Your task to perform on an android device: change your default location settings in chrome Image 0: 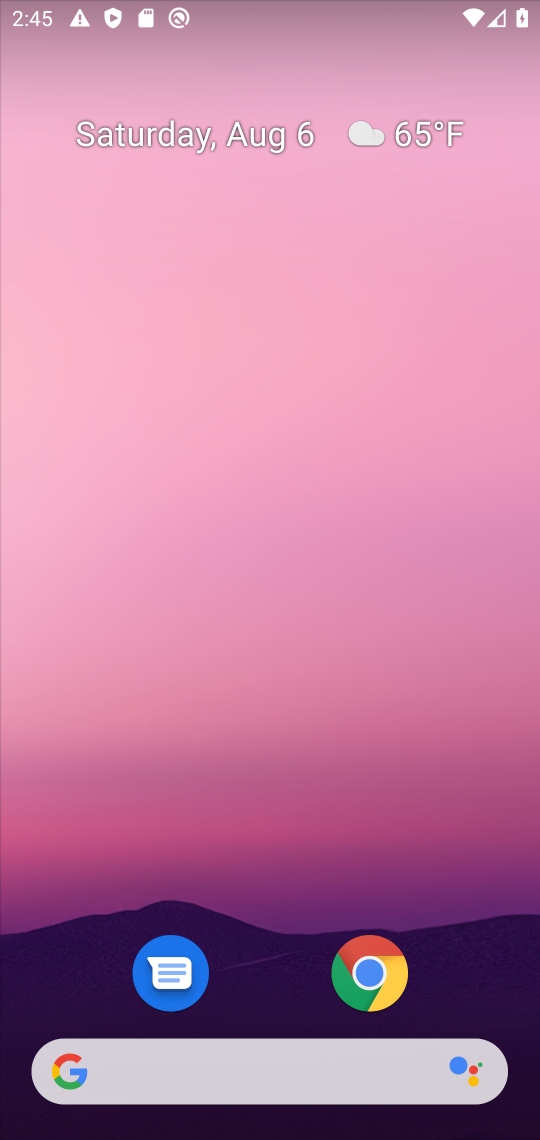
Step 0: click (364, 969)
Your task to perform on an android device: change your default location settings in chrome Image 1: 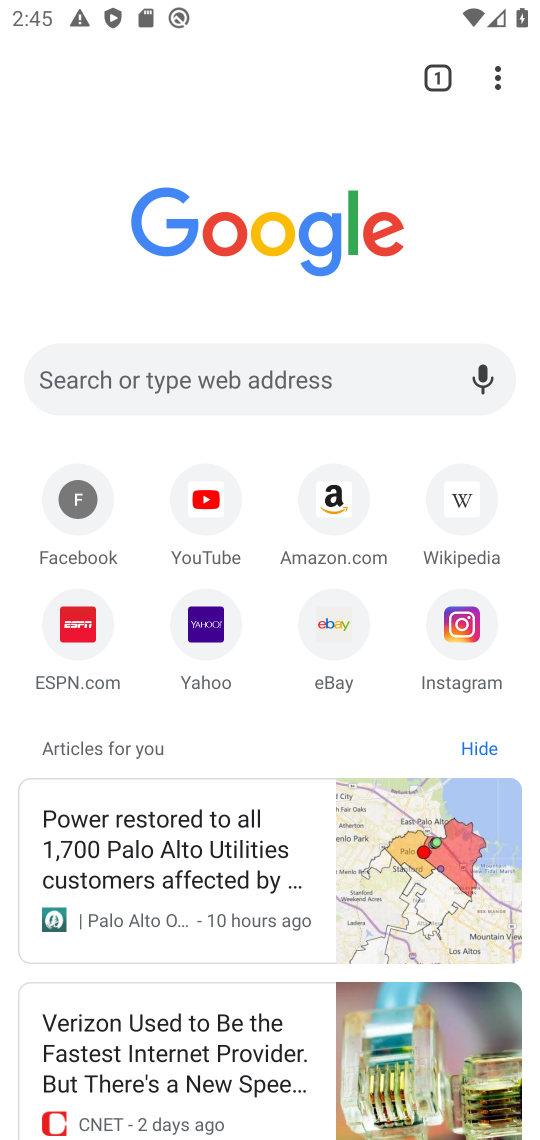
Step 1: click (498, 95)
Your task to perform on an android device: change your default location settings in chrome Image 2: 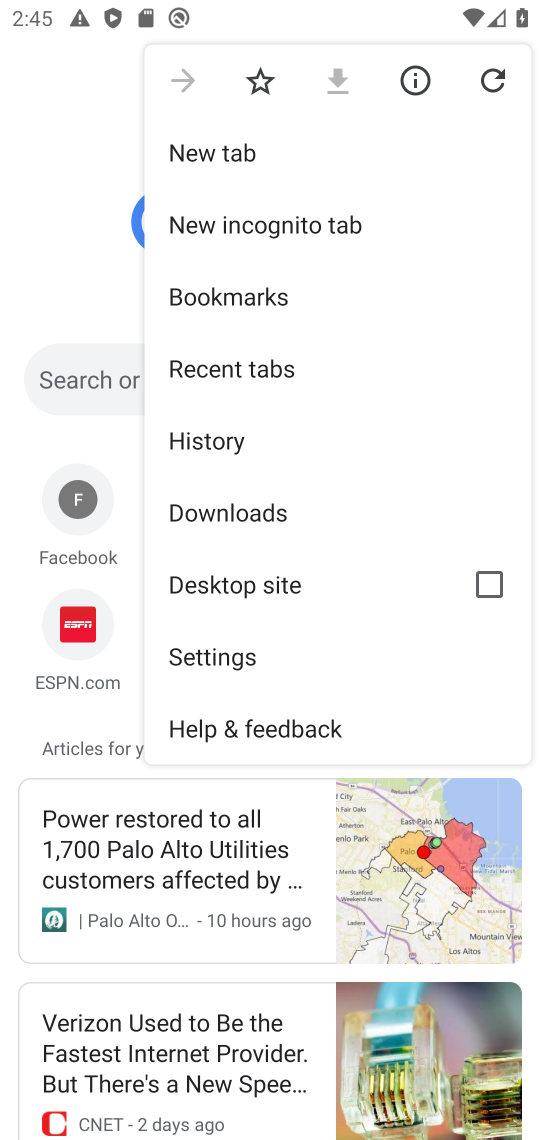
Step 2: click (269, 648)
Your task to perform on an android device: change your default location settings in chrome Image 3: 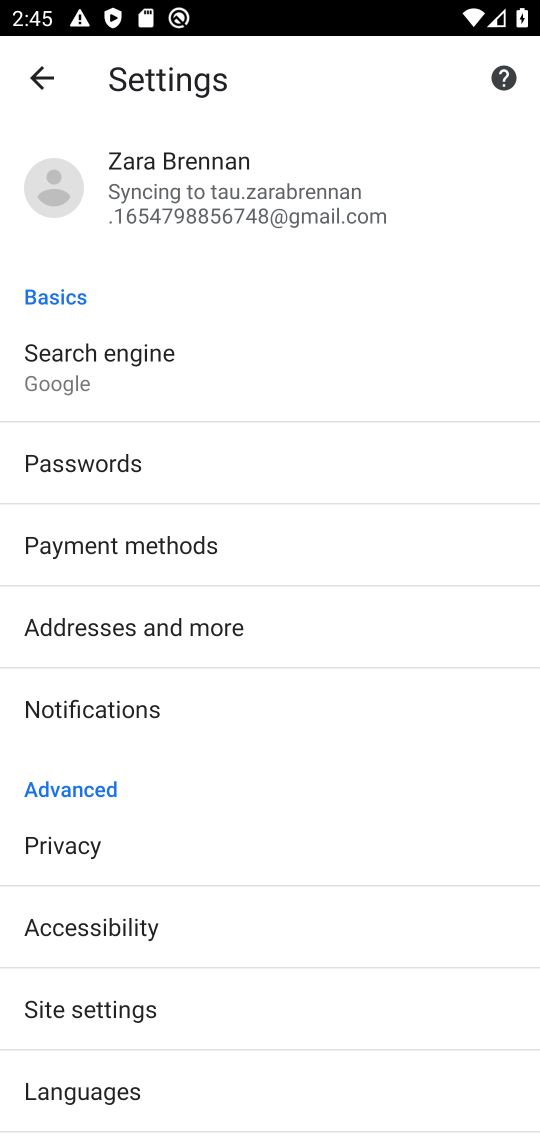
Step 3: click (116, 1023)
Your task to perform on an android device: change your default location settings in chrome Image 4: 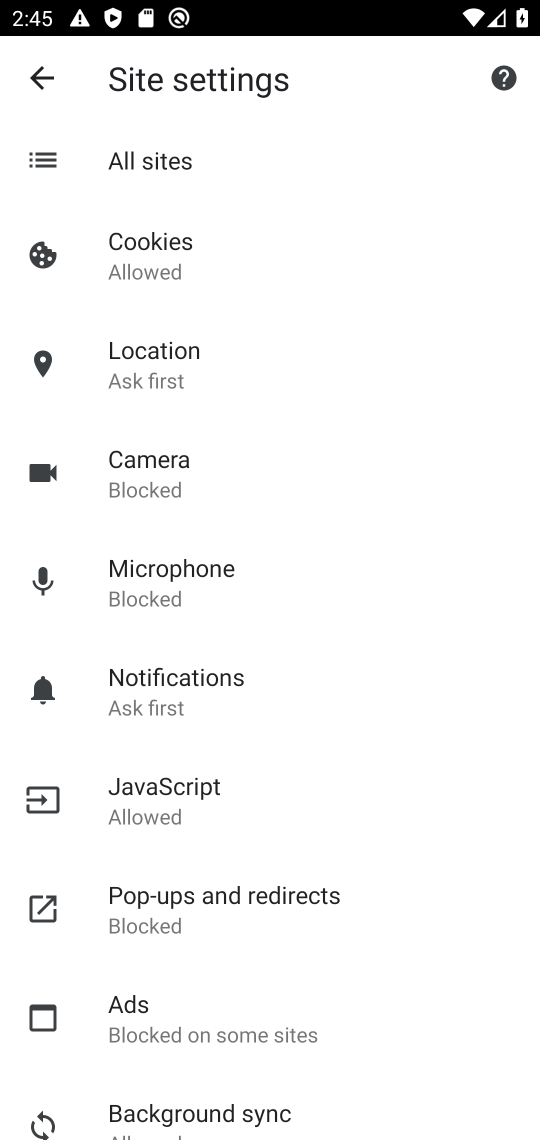
Step 4: click (238, 356)
Your task to perform on an android device: change your default location settings in chrome Image 5: 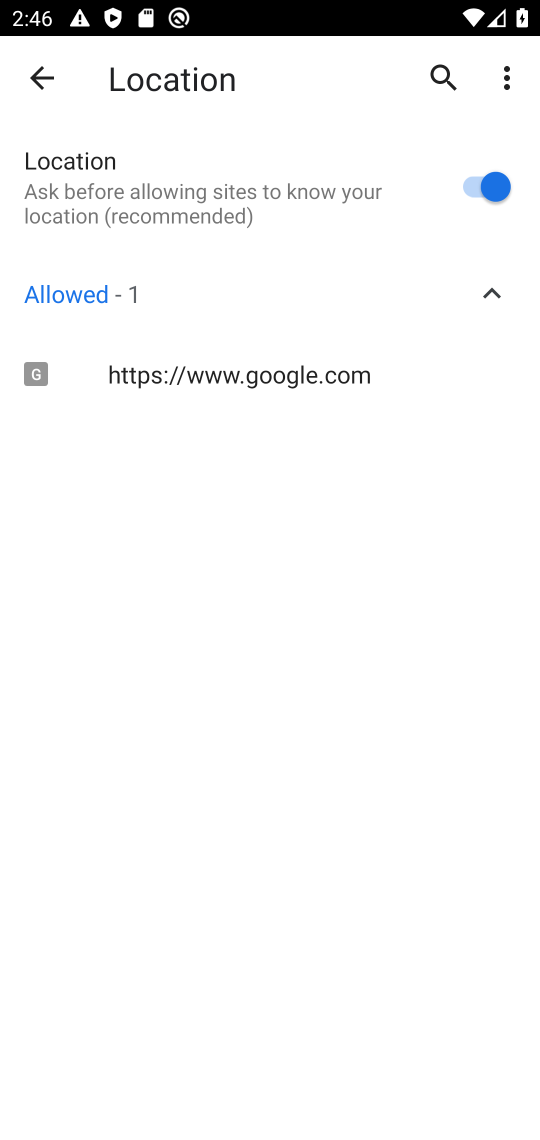
Step 5: click (498, 179)
Your task to perform on an android device: change your default location settings in chrome Image 6: 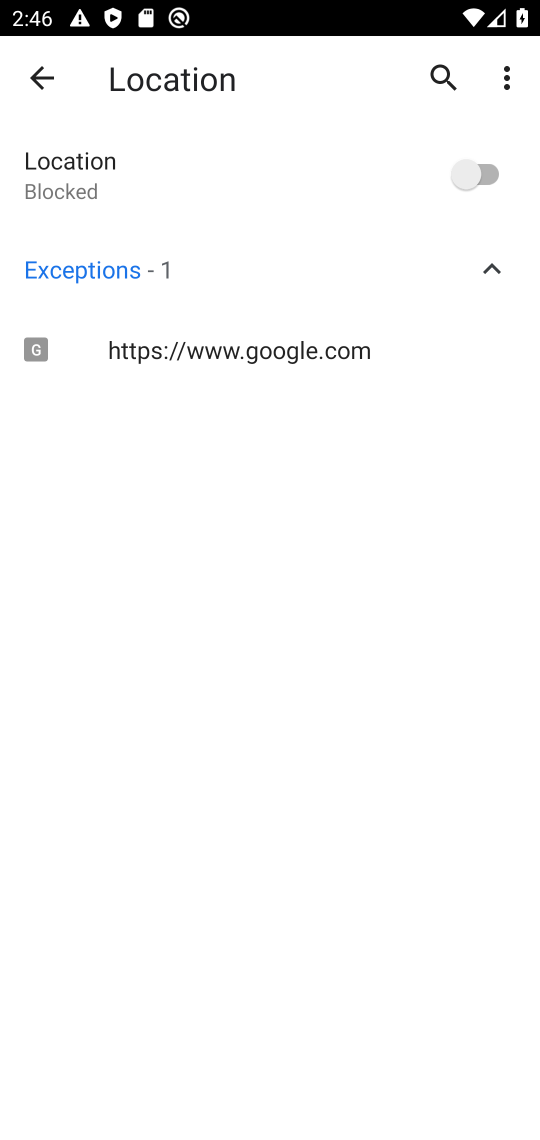
Step 6: task complete